Your task to perform on an android device: turn off location history Image 0: 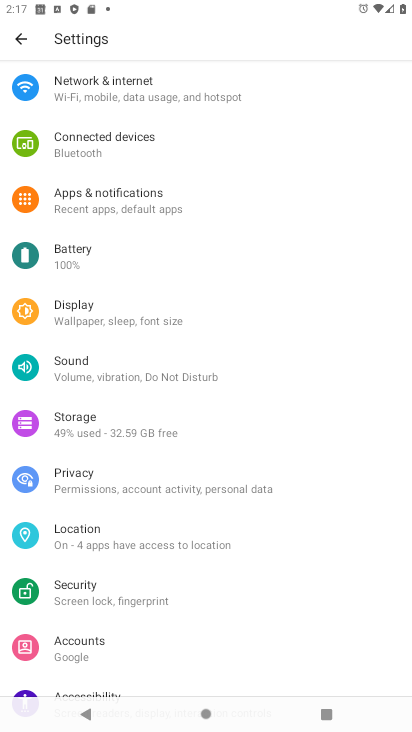
Step 0: click (148, 517)
Your task to perform on an android device: turn off location history Image 1: 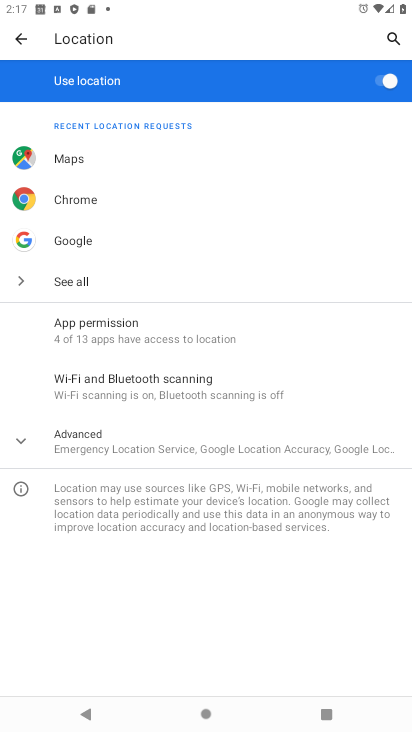
Step 1: click (174, 433)
Your task to perform on an android device: turn off location history Image 2: 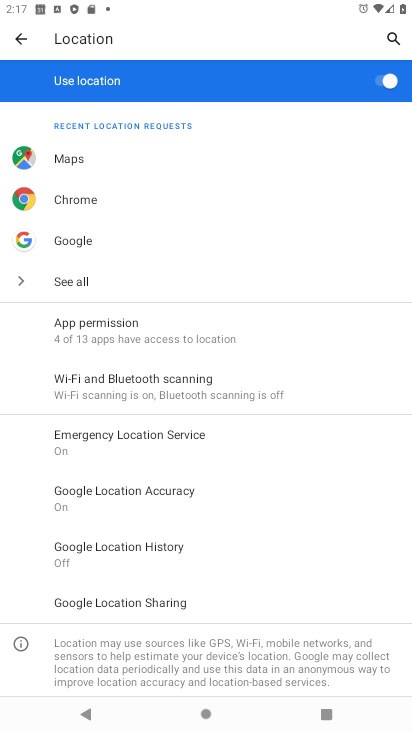
Step 2: click (152, 541)
Your task to perform on an android device: turn off location history Image 3: 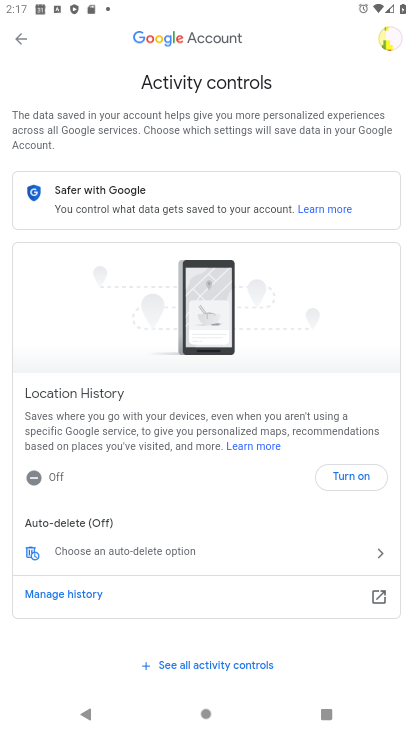
Step 3: task complete